Your task to perform on an android device: turn off airplane mode Image 0: 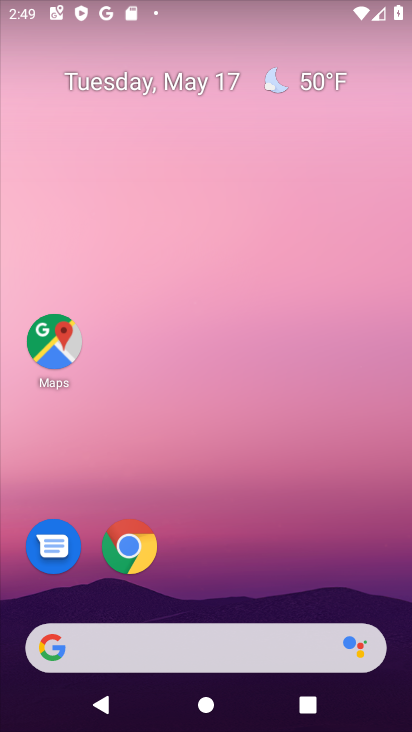
Step 0: drag from (257, 592) to (354, 96)
Your task to perform on an android device: turn off airplane mode Image 1: 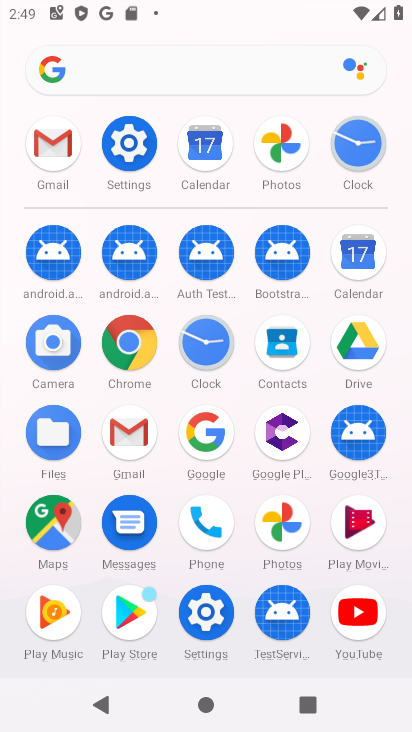
Step 1: click (136, 155)
Your task to perform on an android device: turn off airplane mode Image 2: 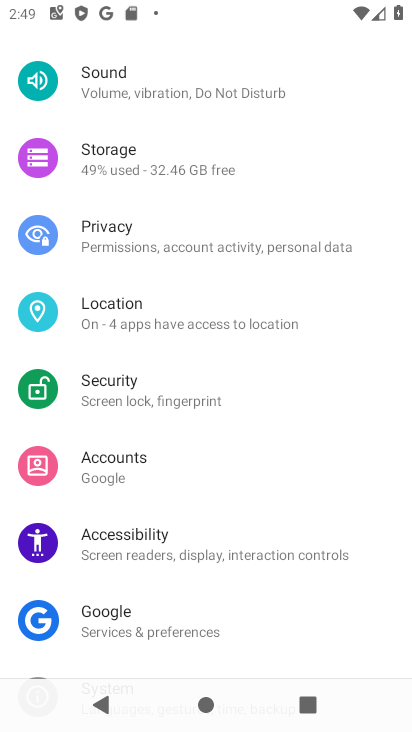
Step 2: drag from (163, 406) to (164, 542)
Your task to perform on an android device: turn off airplane mode Image 3: 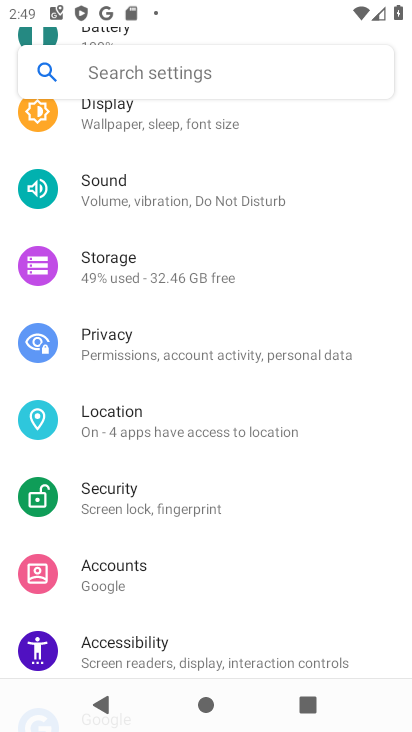
Step 3: drag from (172, 212) to (154, 690)
Your task to perform on an android device: turn off airplane mode Image 4: 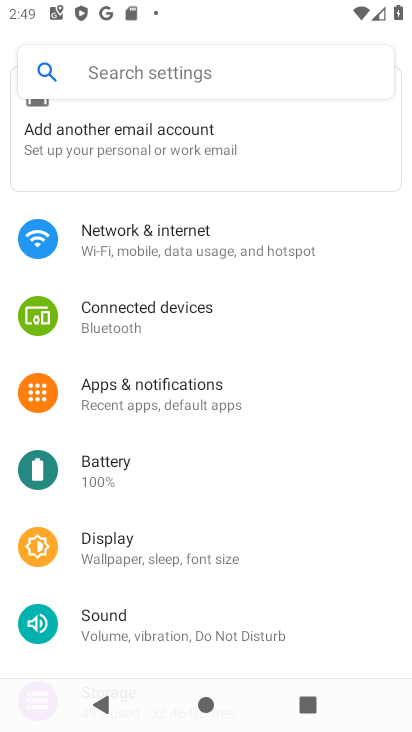
Step 4: click (152, 241)
Your task to perform on an android device: turn off airplane mode Image 5: 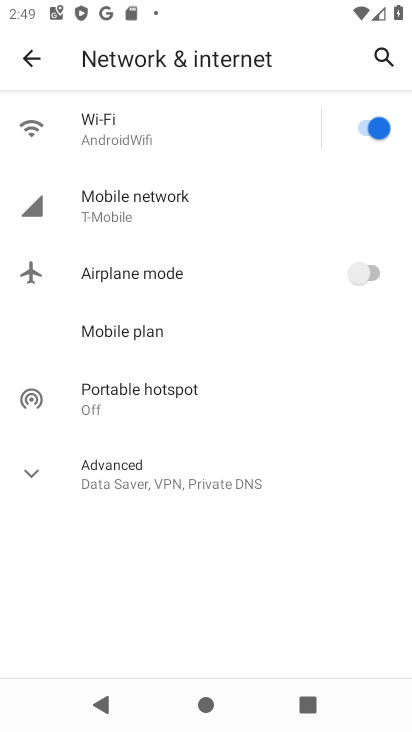
Step 5: task complete